Your task to perform on an android device: delete a single message in the gmail app Image 0: 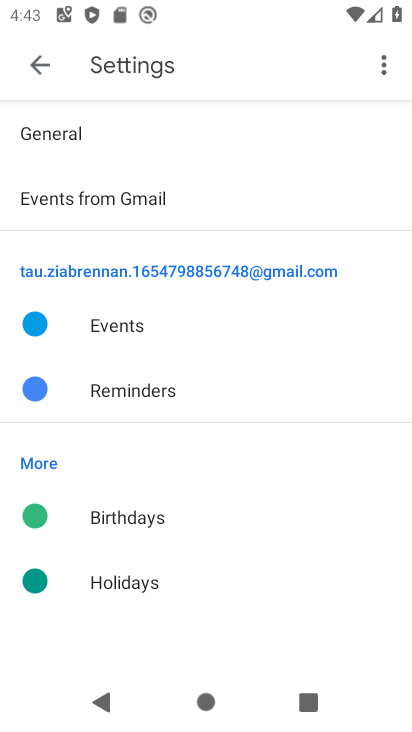
Step 0: press home button
Your task to perform on an android device: delete a single message in the gmail app Image 1: 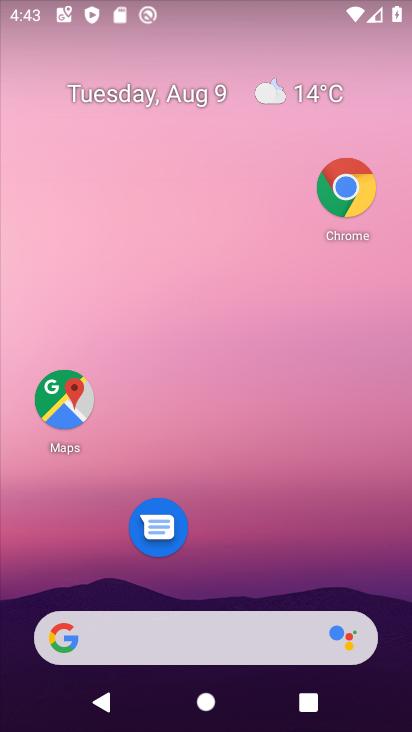
Step 1: drag from (283, 557) to (256, 118)
Your task to perform on an android device: delete a single message in the gmail app Image 2: 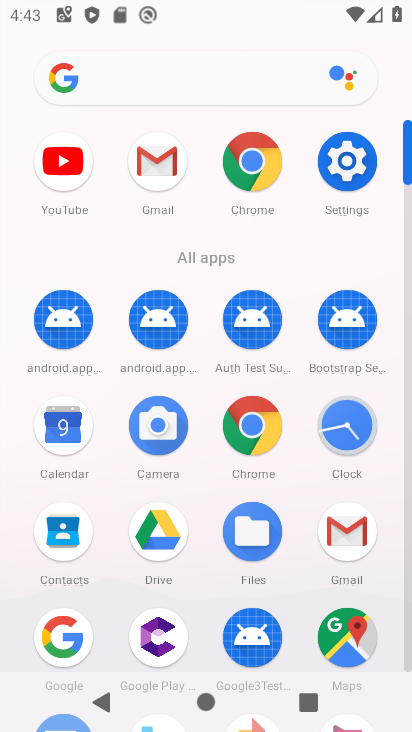
Step 2: click (169, 157)
Your task to perform on an android device: delete a single message in the gmail app Image 3: 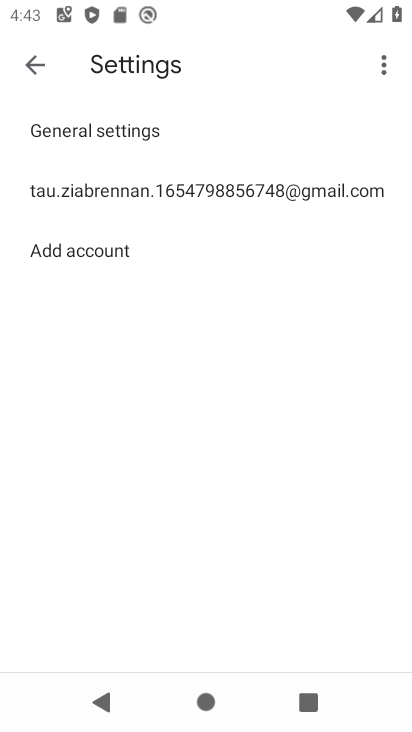
Step 3: click (37, 73)
Your task to perform on an android device: delete a single message in the gmail app Image 4: 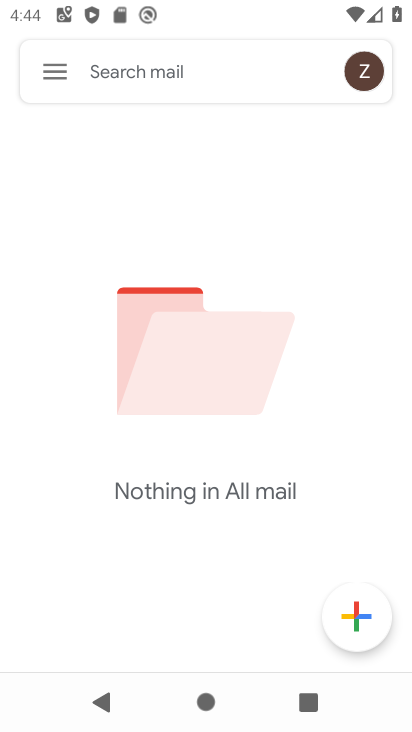
Step 4: task complete